Your task to perform on an android device: Show me the alarms in the clock app Image 0: 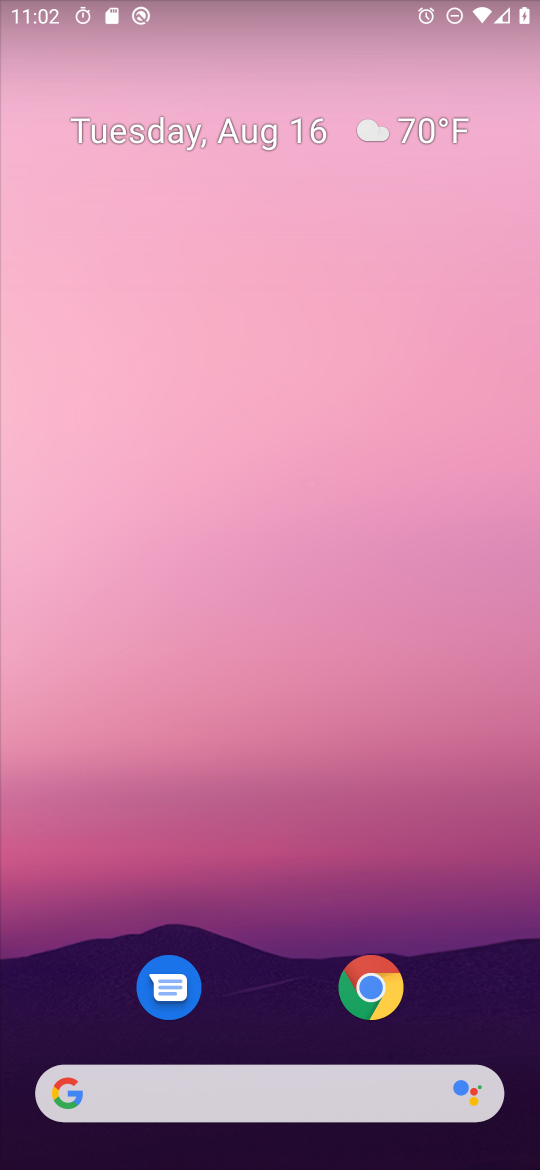
Step 0: drag from (25, 1114) to (81, 523)
Your task to perform on an android device: Show me the alarms in the clock app Image 1: 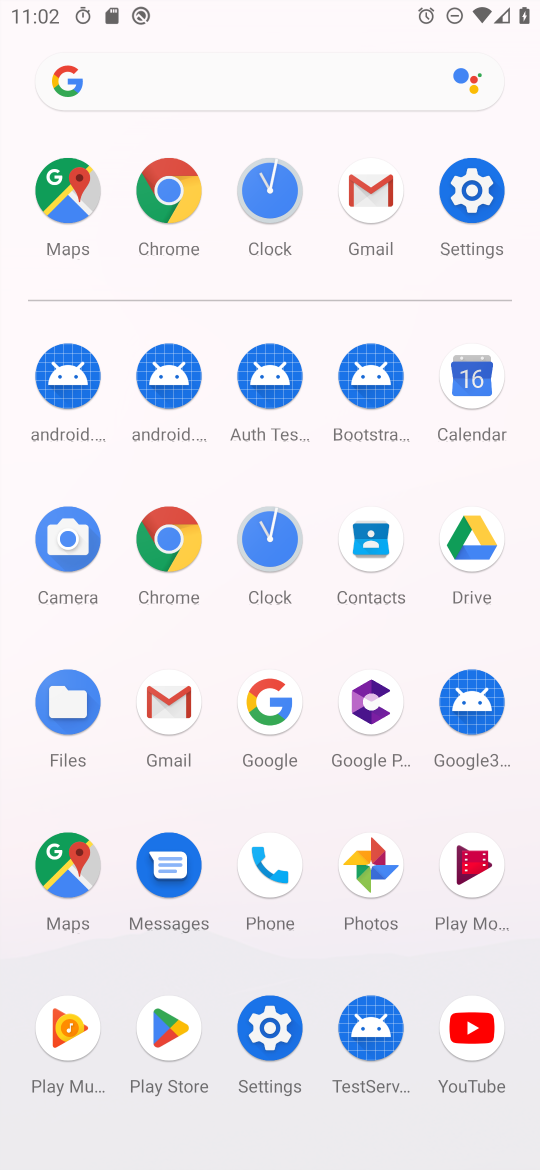
Step 1: click (256, 572)
Your task to perform on an android device: Show me the alarms in the clock app Image 2: 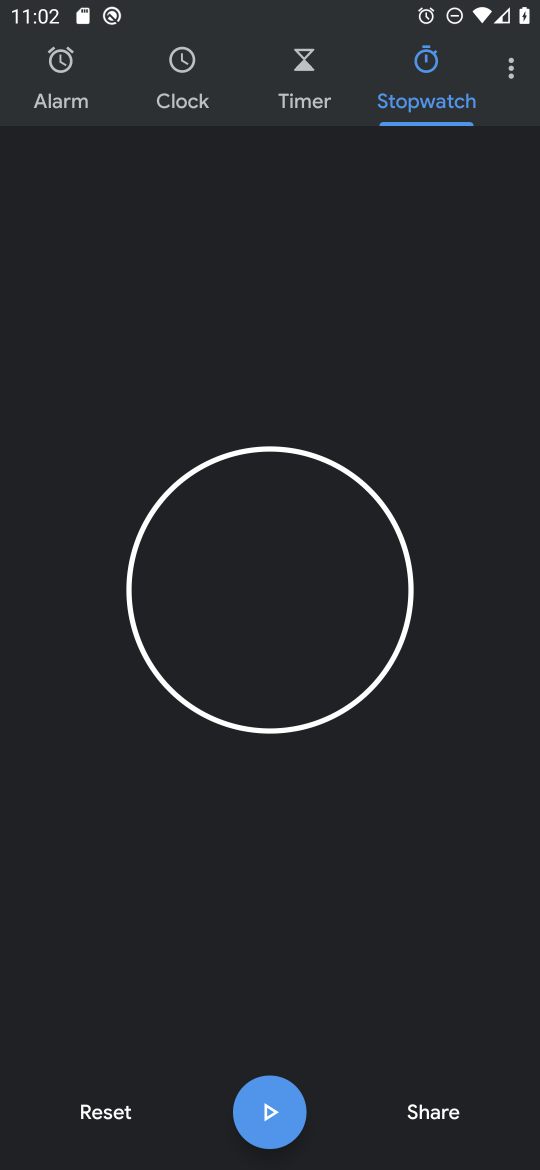
Step 2: click (64, 74)
Your task to perform on an android device: Show me the alarms in the clock app Image 3: 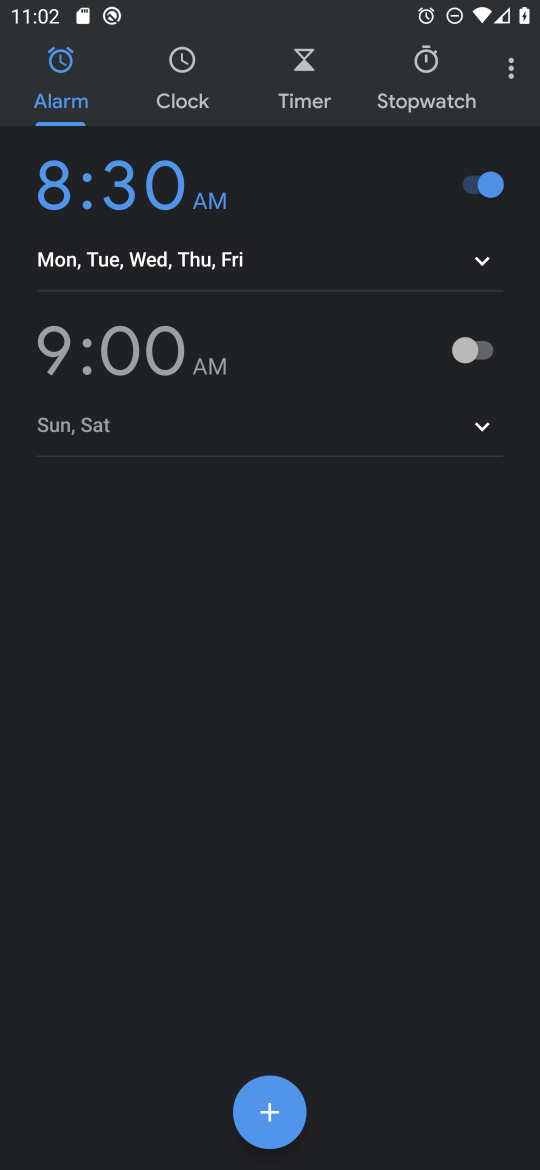
Step 3: task complete